Your task to perform on an android device: Open Reddit.com Image 0: 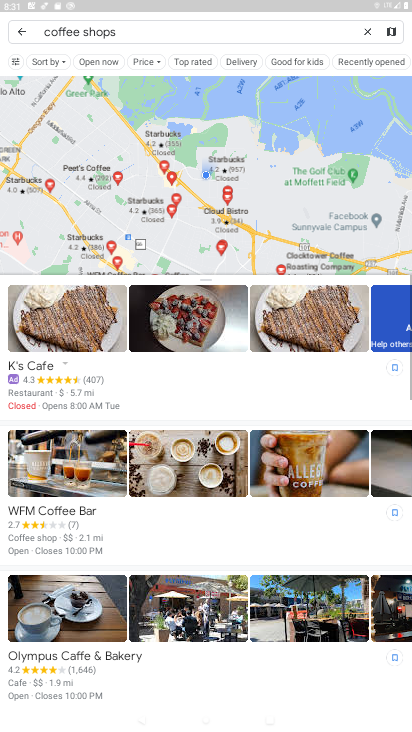
Step 0: press home button
Your task to perform on an android device: Open Reddit.com Image 1: 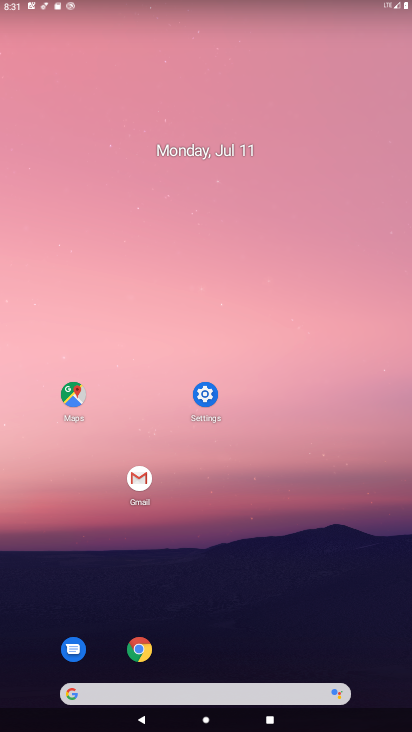
Step 1: click (139, 639)
Your task to perform on an android device: Open Reddit.com Image 2: 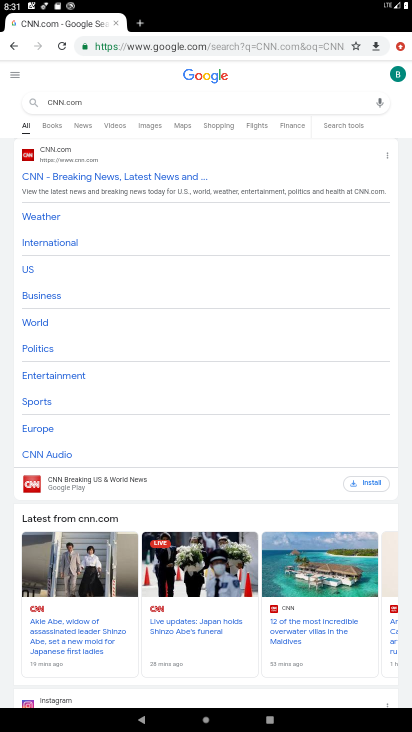
Step 2: click (302, 44)
Your task to perform on an android device: Open Reddit.com Image 3: 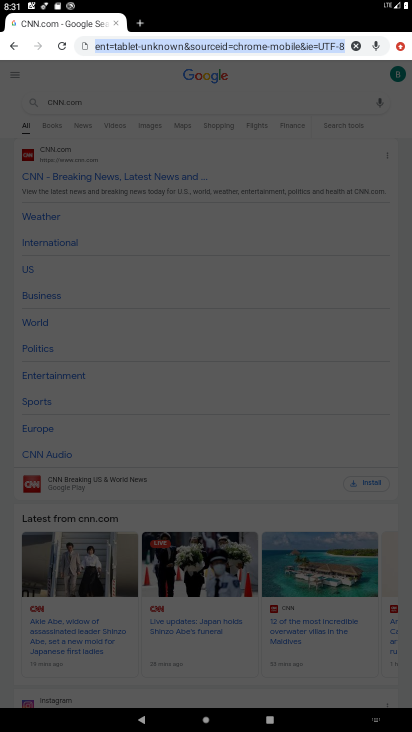
Step 3: click (358, 45)
Your task to perform on an android device: Open Reddit.com Image 4: 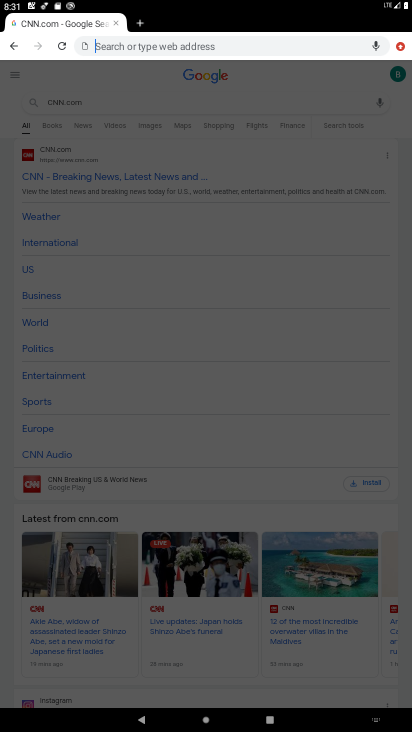
Step 4: type "Reddit.com"
Your task to perform on an android device: Open Reddit.com Image 5: 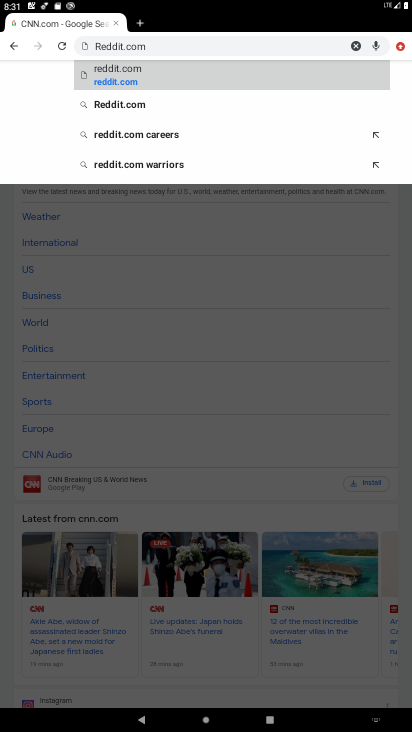
Step 5: click (121, 102)
Your task to perform on an android device: Open Reddit.com Image 6: 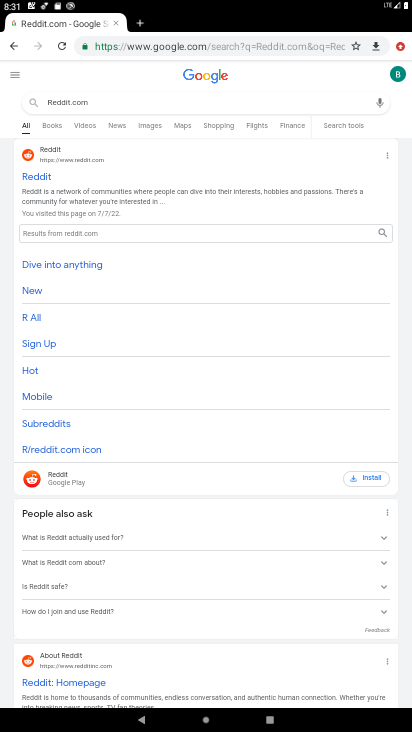
Step 6: click (27, 174)
Your task to perform on an android device: Open Reddit.com Image 7: 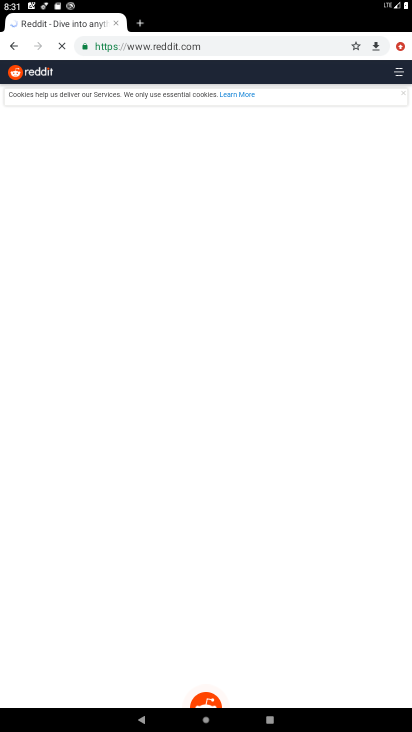
Step 7: task complete